Your task to perform on an android device: turn off smart reply in the gmail app Image 0: 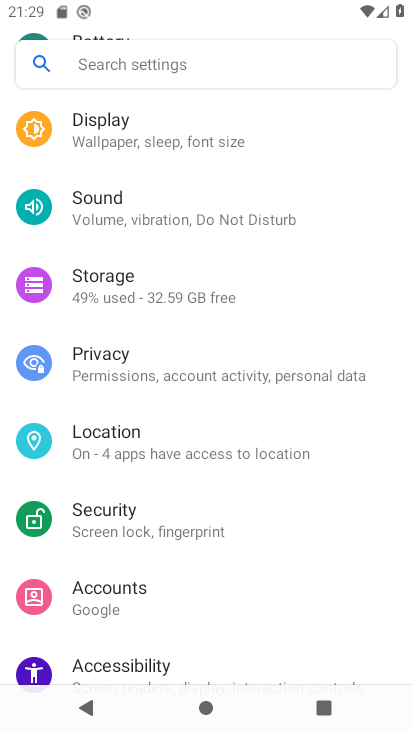
Step 0: press home button
Your task to perform on an android device: turn off smart reply in the gmail app Image 1: 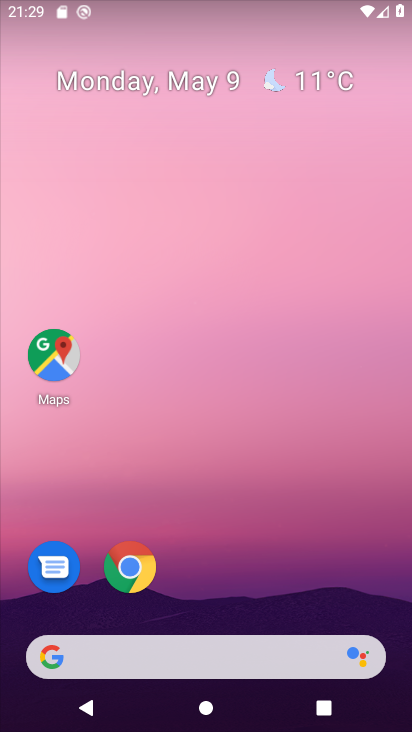
Step 1: drag from (257, 347) to (214, 57)
Your task to perform on an android device: turn off smart reply in the gmail app Image 2: 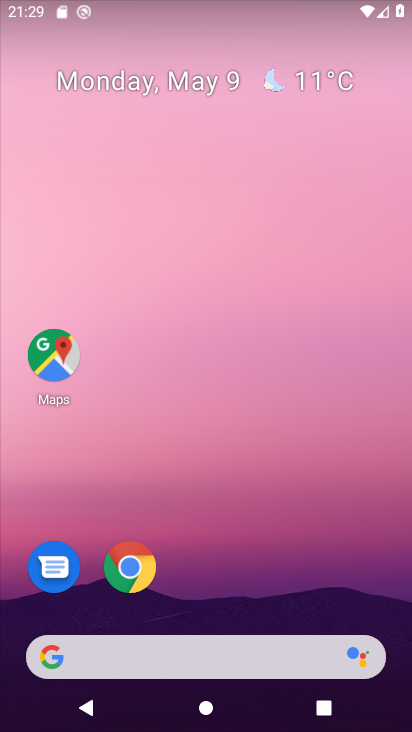
Step 2: drag from (253, 543) to (211, 84)
Your task to perform on an android device: turn off smart reply in the gmail app Image 3: 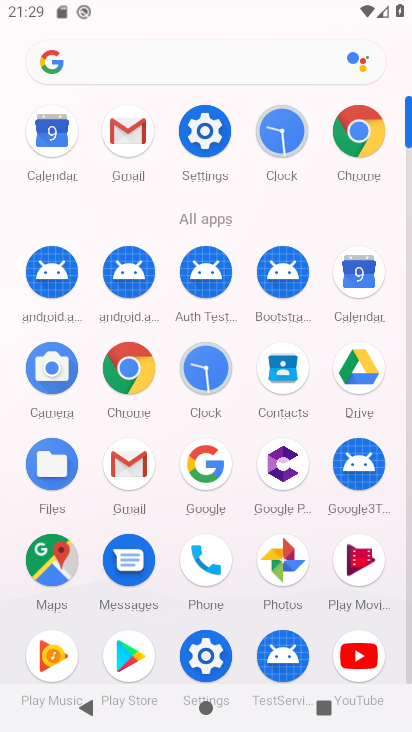
Step 3: click (132, 109)
Your task to perform on an android device: turn off smart reply in the gmail app Image 4: 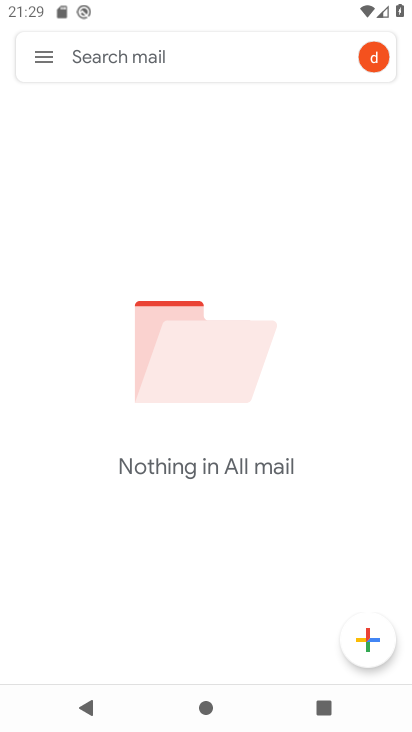
Step 4: click (38, 47)
Your task to perform on an android device: turn off smart reply in the gmail app Image 5: 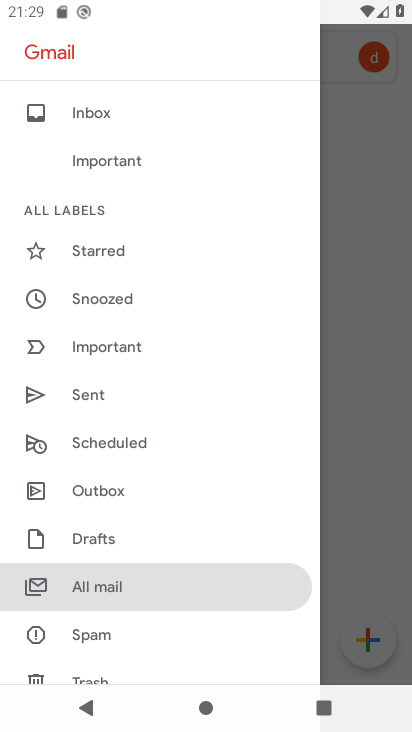
Step 5: drag from (139, 635) to (154, 191)
Your task to perform on an android device: turn off smart reply in the gmail app Image 6: 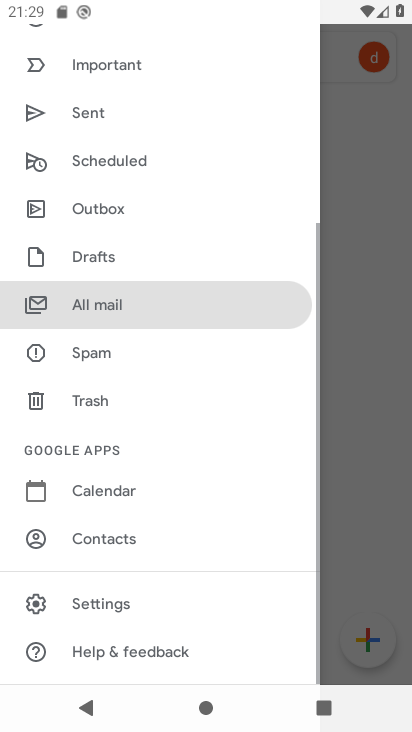
Step 6: click (112, 597)
Your task to perform on an android device: turn off smart reply in the gmail app Image 7: 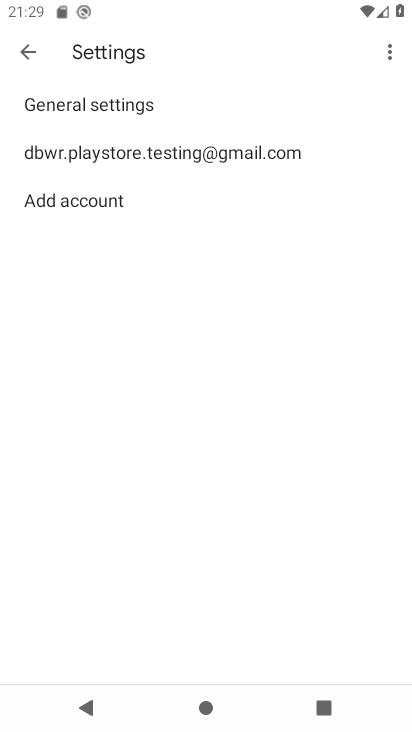
Step 7: click (146, 166)
Your task to perform on an android device: turn off smart reply in the gmail app Image 8: 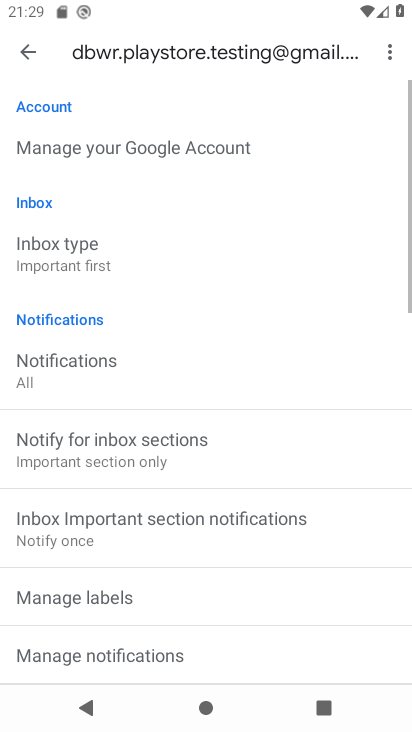
Step 8: drag from (237, 343) to (262, 156)
Your task to perform on an android device: turn off smart reply in the gmail app Image 9: 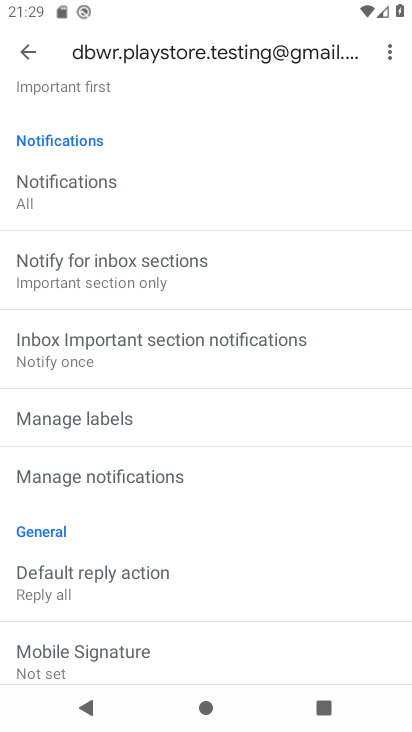
Step 9: drag from (234, 590) to (234, 177)
Your task to perform on an android device: turn off smart reply in the gmail app Image 10: 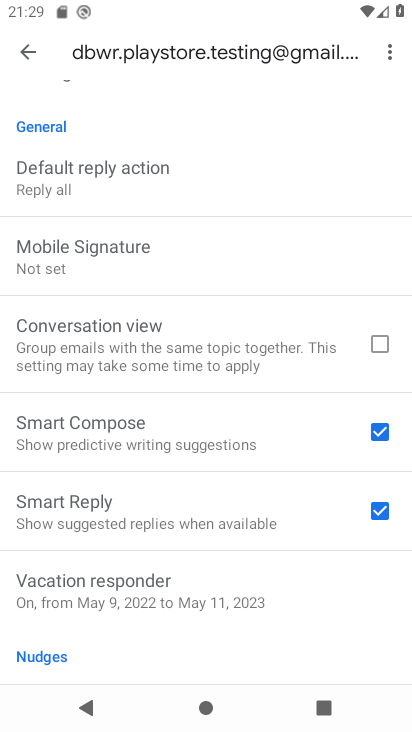
Step 10: click (372, 513)
Your task to perform on an android device: turn off smart reply in the gmail app Image 11: 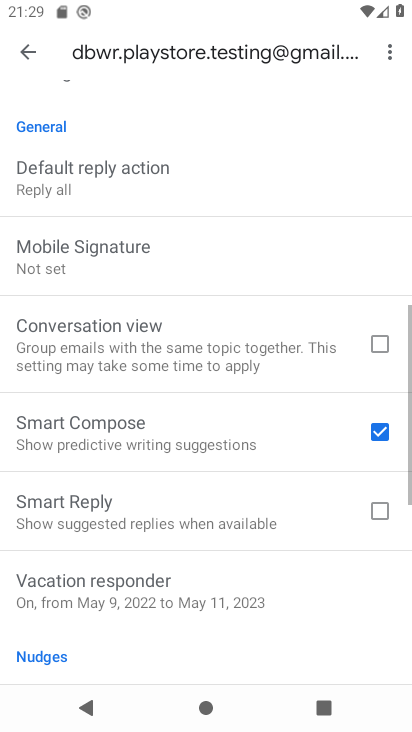
Step 11: task complete